Your task to perform on an android device: allow notifications from all sites in the chrome app Image 0: 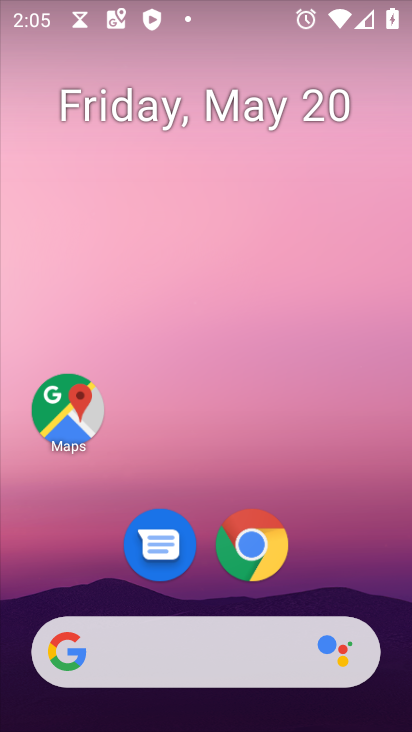
Step 0: click (250, 547)
Your task to perform on an android device: allow notifications from all sites in the chrome app Image 1: 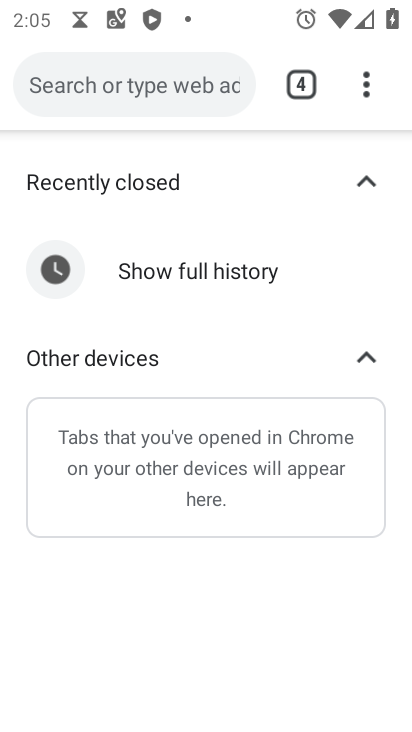
Step 1: click (373, 73)
Your task to perform on an android device: allow notifications from all sites in the chrome app Image 2: 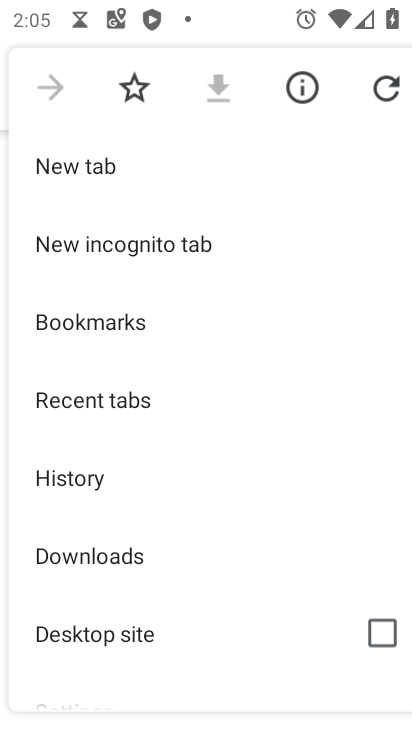
Step 2: drag from (246, 633) to (243, 386)
Your task to perform on an android device: allow notifications from all sites in the chrome app Image 3: 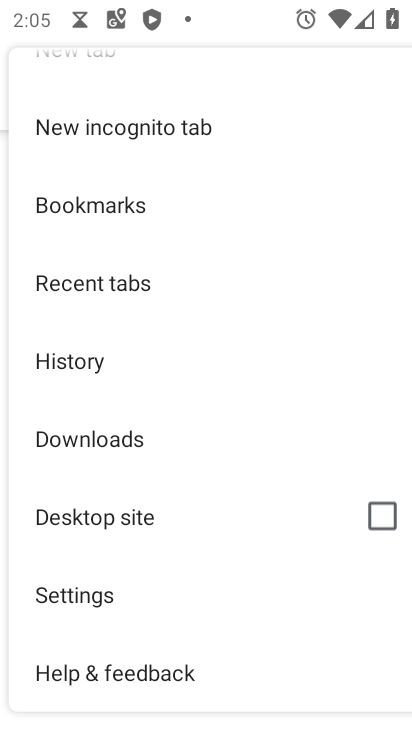
Step 3: click (108, 591)
Your task to perform on an android device: allow notifications from all sites in the chrome app Image 4: 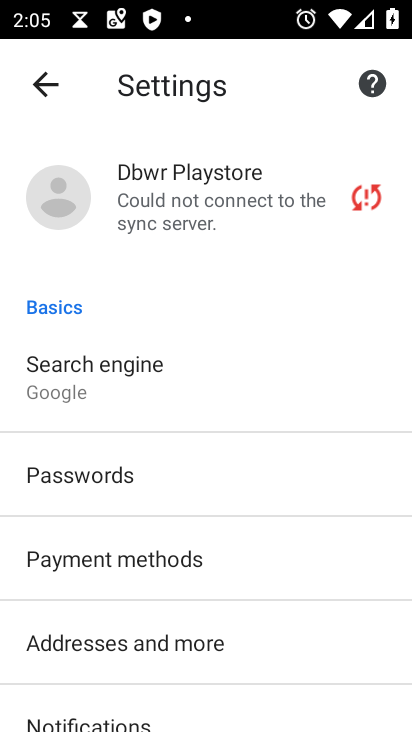
Step 4: drag from (276, 632) to (286, 352)
Your task to perform on an android device: allow notifications from all sites in the chrome app Image 5: 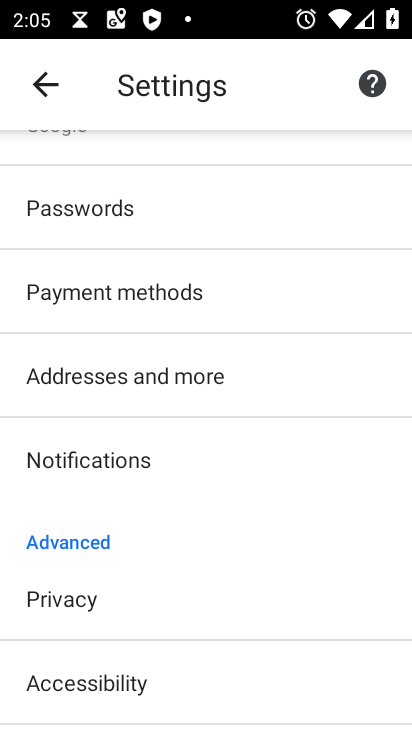
Step 5: click (180, 451)
Your task to perform on an android device: allow notifications from all sites in the chrome app Image 6: 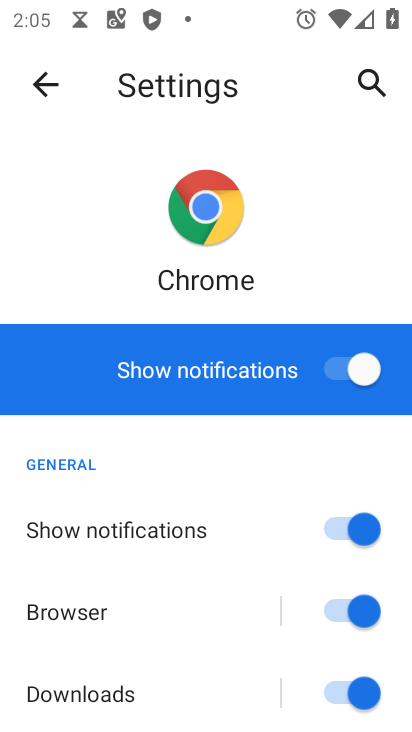
Step 6: task complete